Your task to perform on an android device: Turn on the flashlight Image 0: 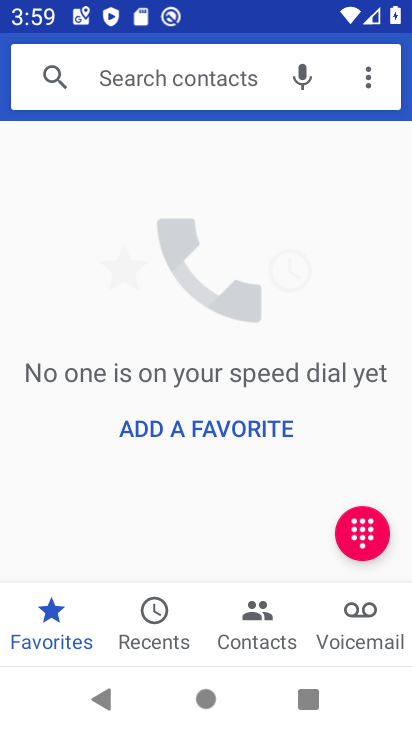
Step 0: drag from (263, 660) to (136, 181)
Your task to perform on an android device: Turn on the flashlight Image 1: 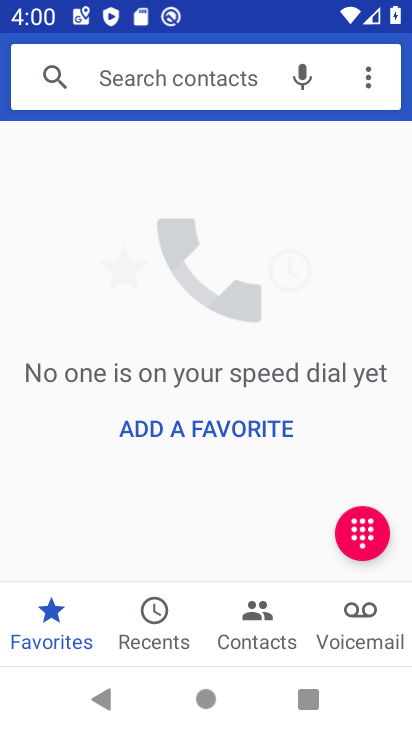
Step 1: press back button
Your task to perform on an android device: Turn on the flashlight Image 2: 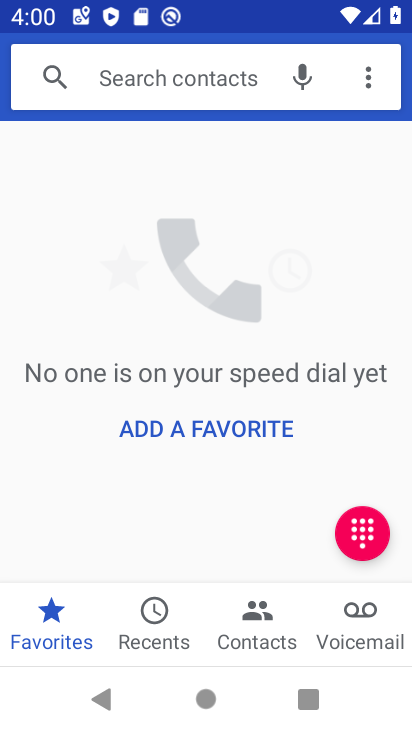
Step 2: press back button
Your task to perform on an android device: Turn on the flashlight Image 3: 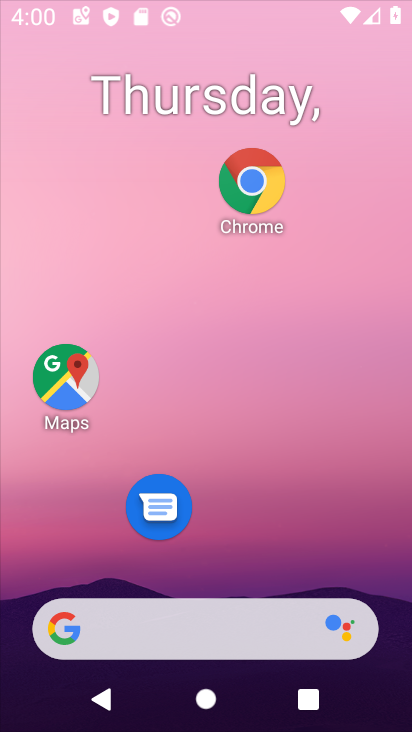
Step 3: press back button
Your task to perform on an android device: Turn on the flashlight Image 4: 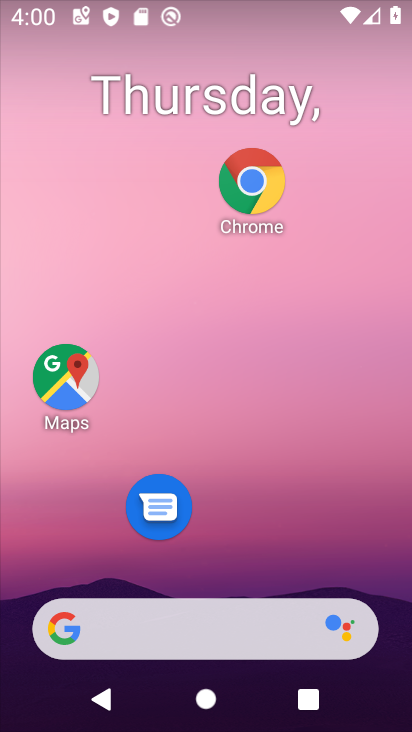
Step 4: click (193, 64)
Your task to perform on an android device: Turn on the flashlight Image 5: 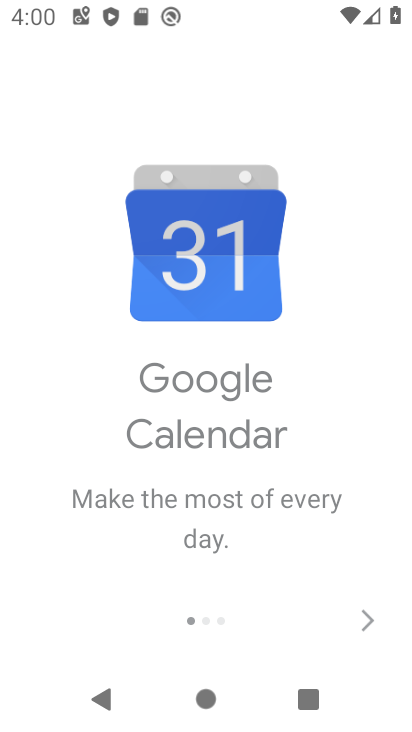
Step 5: task complete